Your task to perform on an android device: turn off improve location accuracy Image 0: 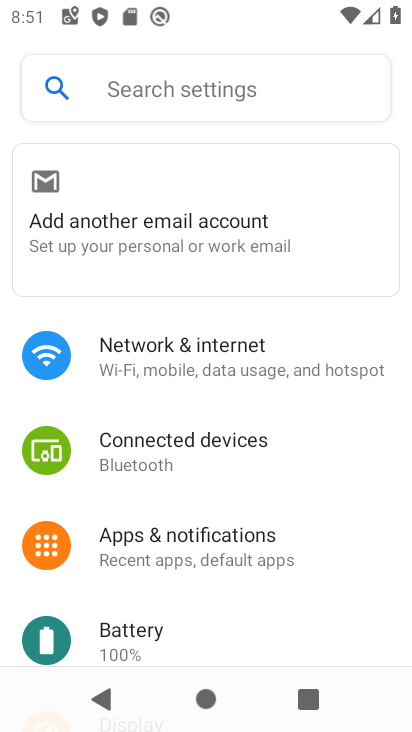
Step 0: drag from (299, 612) to (233, 218)
Your task to perform on an android device: turn off improve location accuracy Image 1: 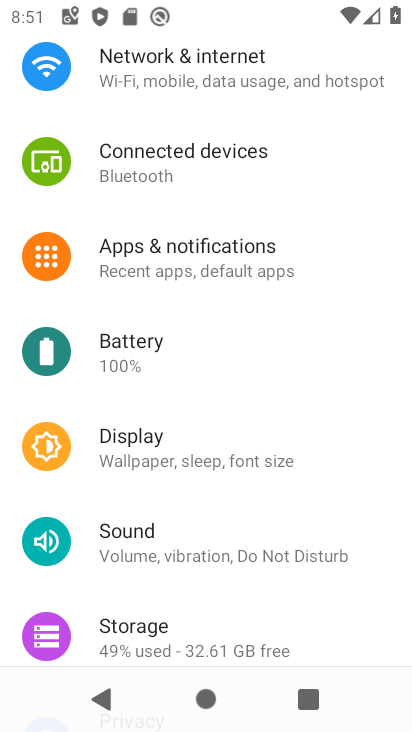
Step 1: drag from (259, 602) to (197, 302)
Your task to perform on an android device: turn off improve location accuracy Image 2: 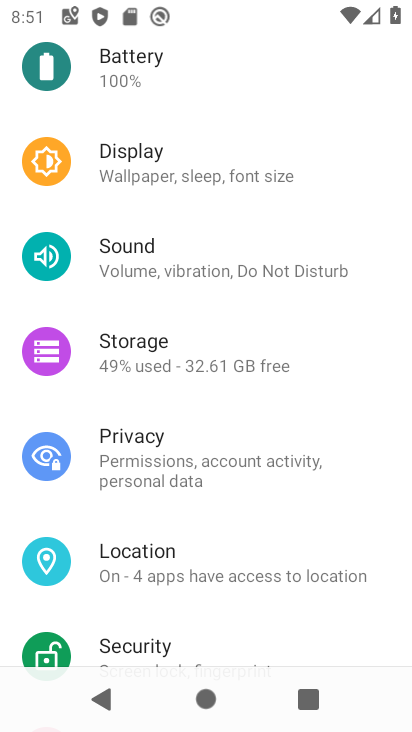
Step 2: click (212, 555)
Your task to perform on an android device: turn off improve location accuracy Image 3: 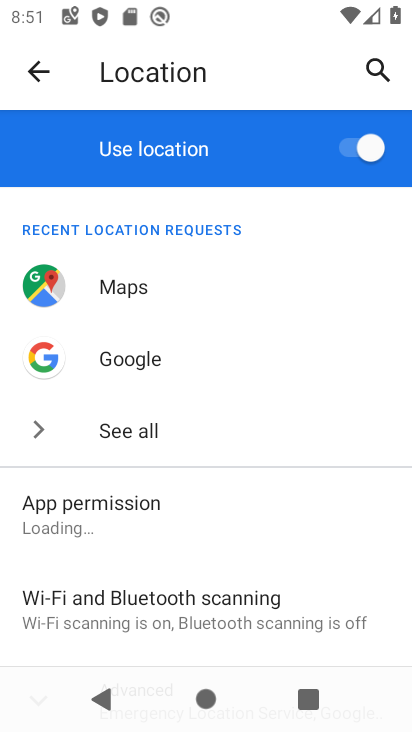
Step 3: drag from (234, 651) to (174, 387)
Your task to perform on an android device: turn off improve location accuracy Image 4: 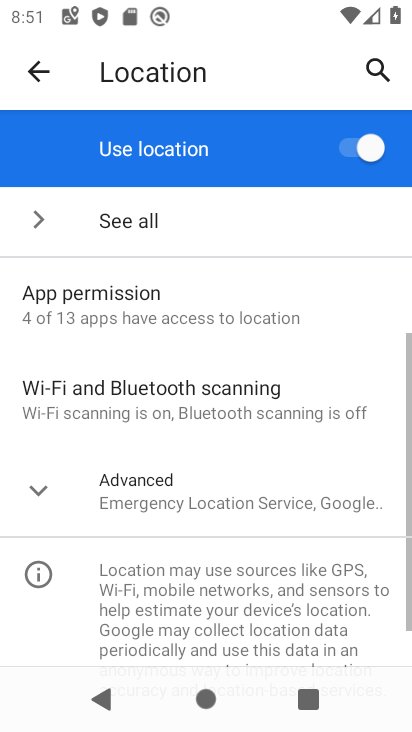
Step 4: click (211, 489)
Your task to perform on an android device: turn off improve location accuracy Image 5: 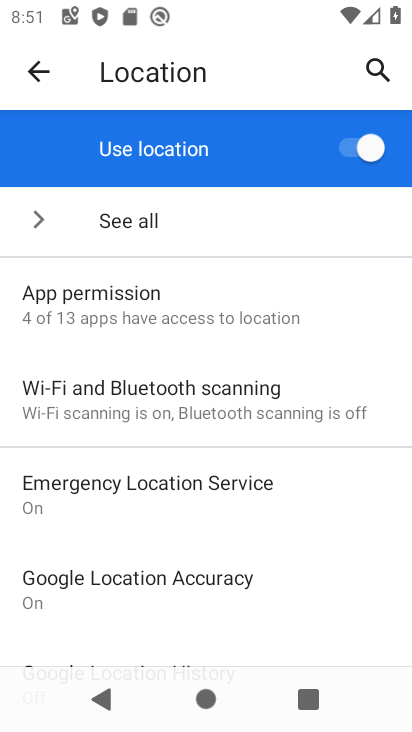
Step 5: click (218, 584)
Your task to perform on an android device: turn off improve location accuracy Image 6: 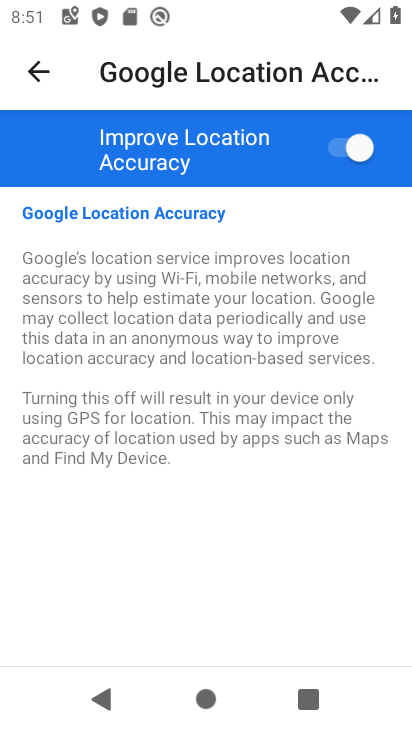
Step 6: click (351, 136)
Your task to perform on an android device: turn off improve location accuracy Image 7: 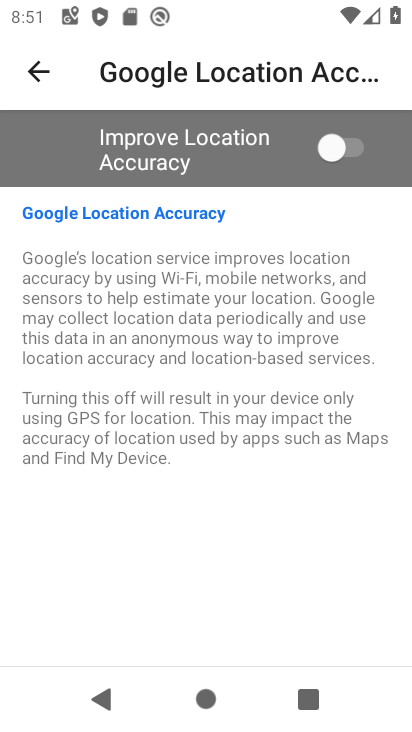
Step 7: task complete